Your task to perform on an android device: Do I have any events today? Image 0: 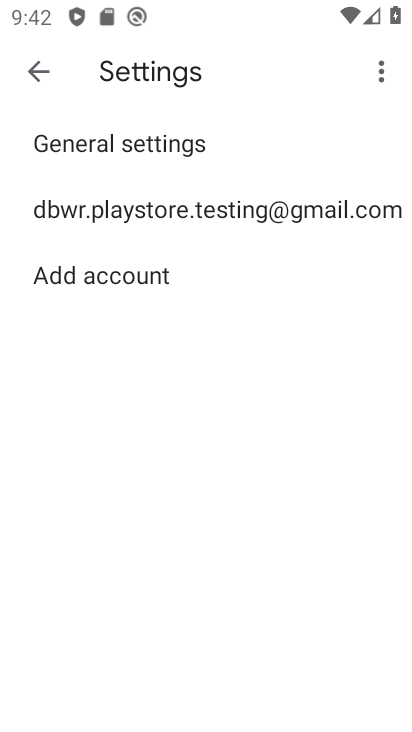
Step 0: press home button
Your task to perform on an android device: Do I have any events today? Image 1: 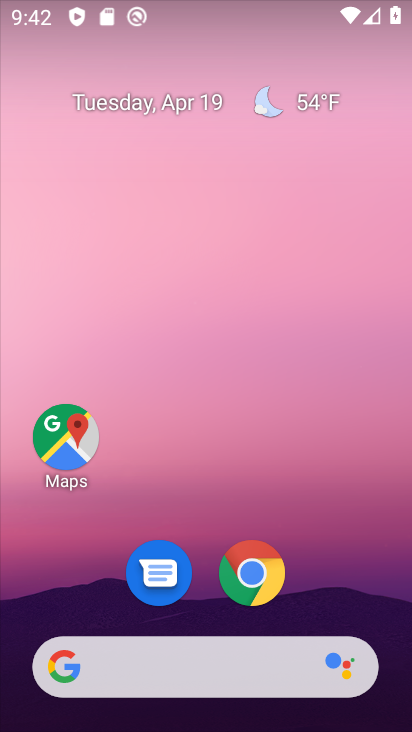
Step 1: drag from (369, 585) to (351, 41)
Your task to perform on an android device: Do I have any events today? Image 2: 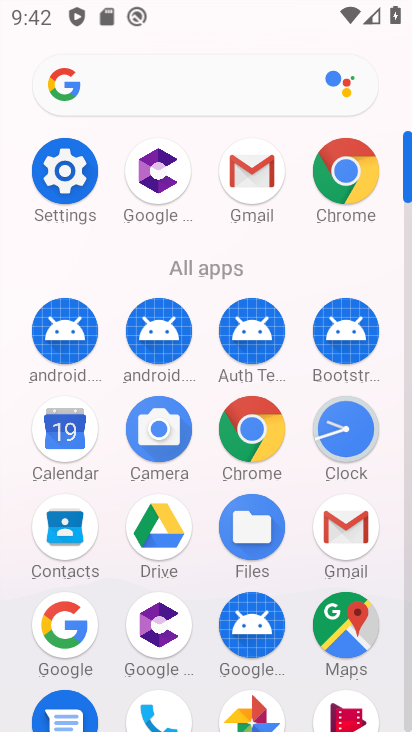
Step 2: click (57, 435)
Your task to perform on an android device: Do I have any events today? Image 3: 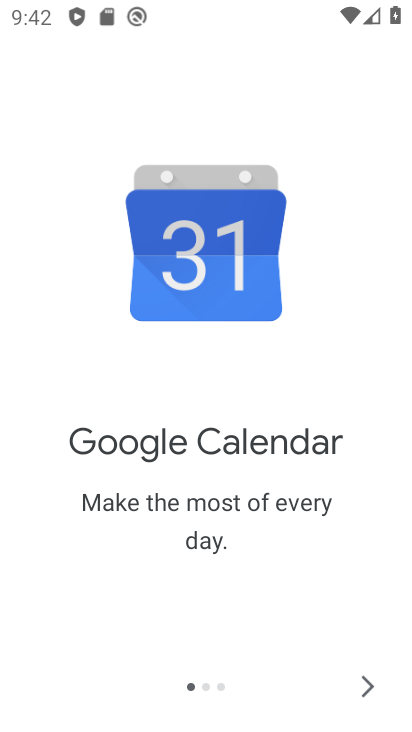
Step 3: click (364, 697)
Your task to perform on an android device: Do I have any events today? Image 4: 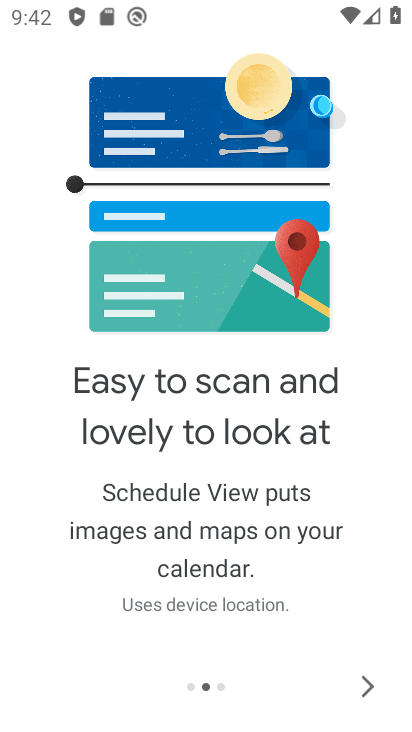
Step 4: click (364, 697)
Your task to perform on an android device: Do I have any events today? Image 5: 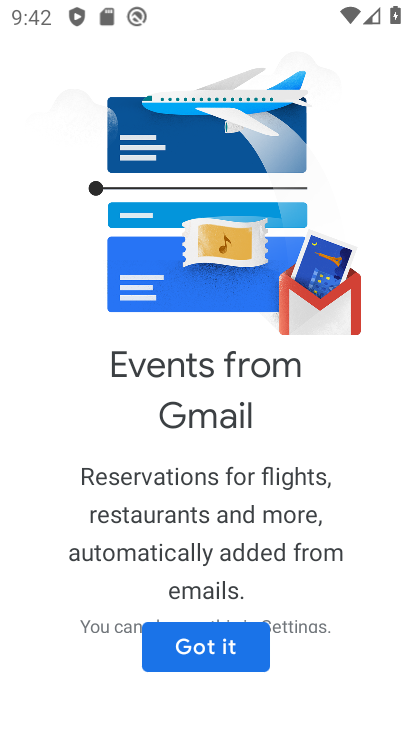
Step 5: click (189, 654)
Your task to perform on an android device: Do I have any events today? Image 6: 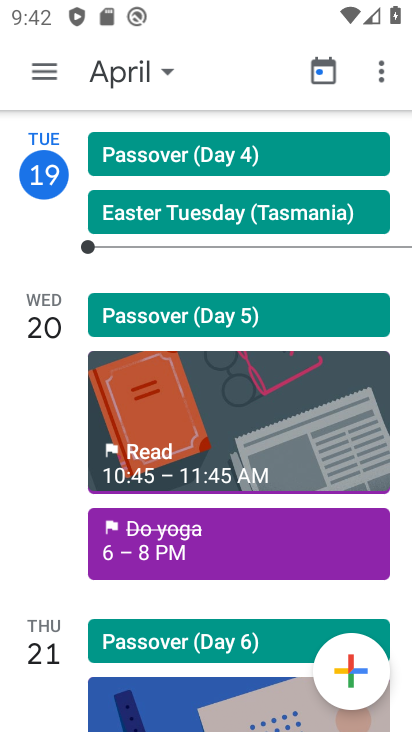
Step 6: click (161, 72)
Your task to perform on an android device: Do I have any events today? Image 7: 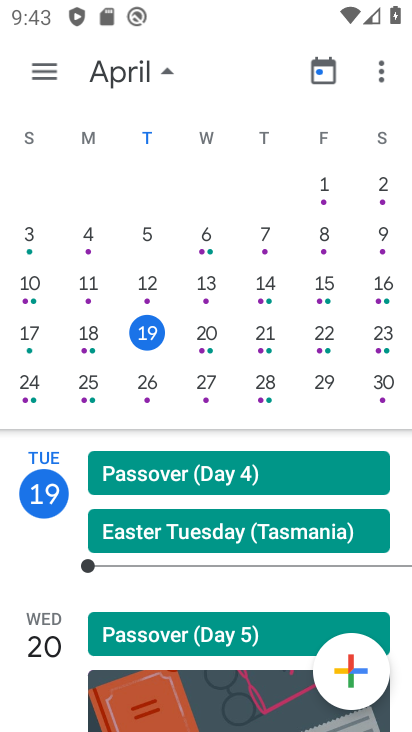
Step 7: click (149, 334)
Your task to perform on an android device: Do I have any events today? Image 8: 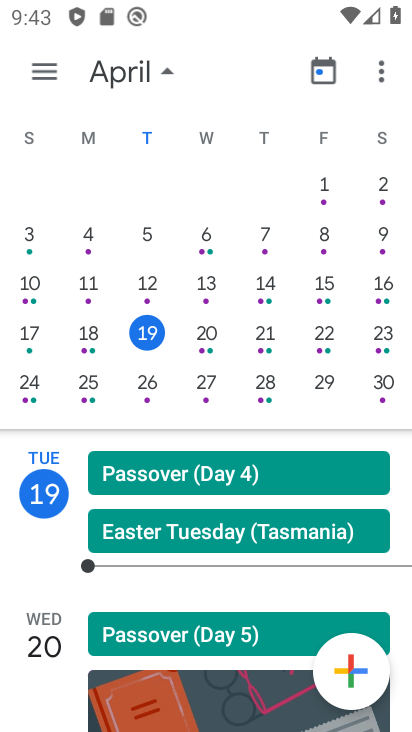
Step 8: task complete